Your task to perform on an android device: turn on data saver in the chrome app Image 0: 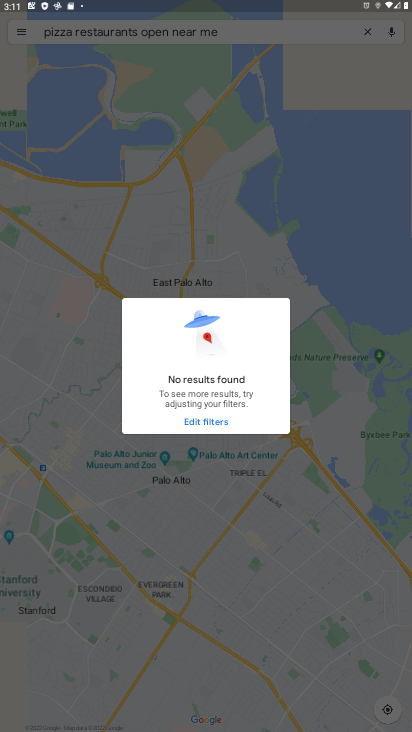
Step 0: task impossible